Your task to perform on an android device: open sync settings in chrome Image 0: 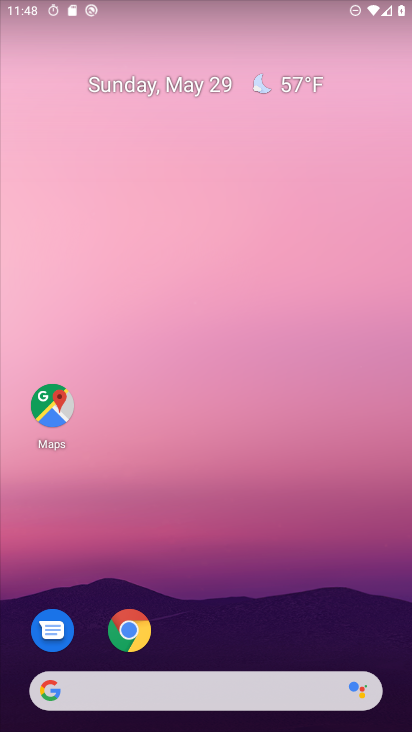
Step 0: drag from (284, 712) to (209, 85)
Your task to perform on an android device: open sync settings in chrome Image 1: 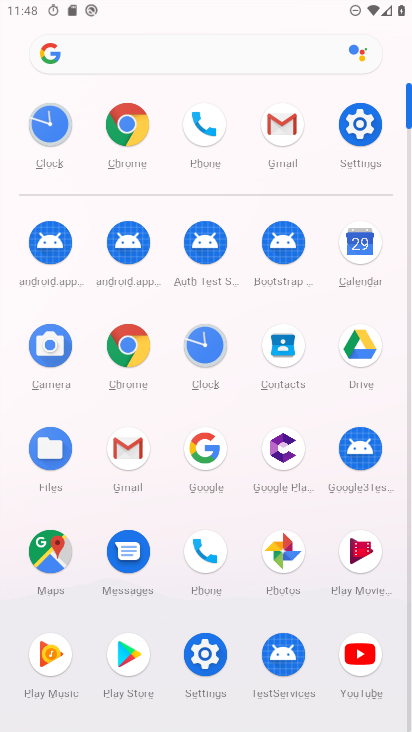
Step 1: click (132, 340)
Your task to perform on an android device: open sync settings in chrome Image 2: 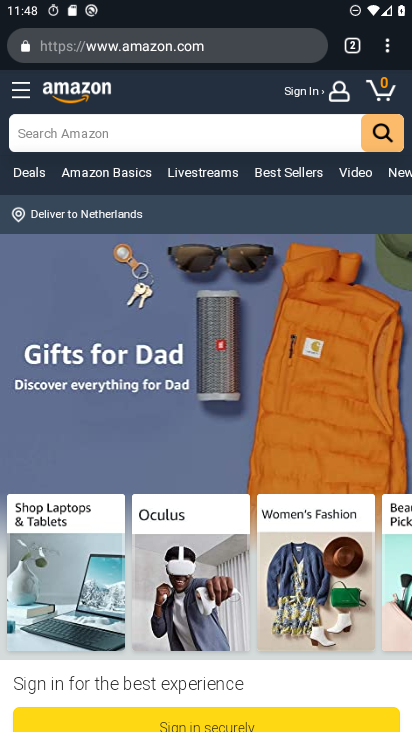
Step 2: click (385, 59)
Your task to perform on an android device: open sync settings in chrome Image 3: 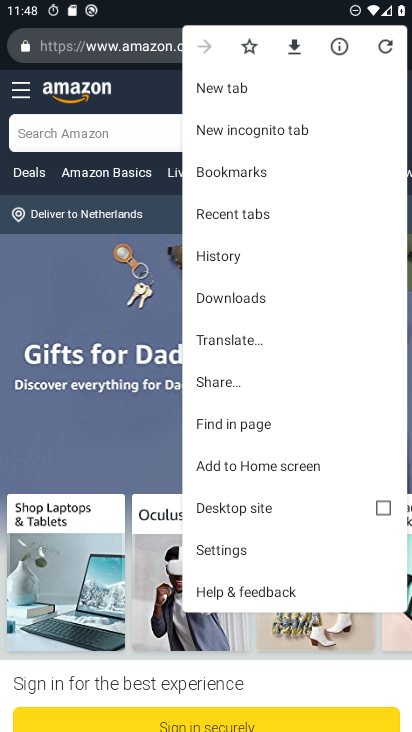
Step 3: click (240, 542)
Your task to perform on an android device: open sync settings in chrome Image 4: 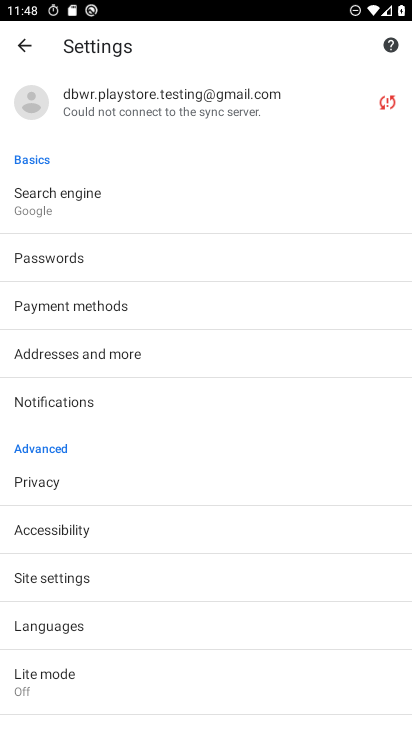
Step 4: task complete